Your task to perform on an android device: turn vacation reply on in the gmail app Image 0: 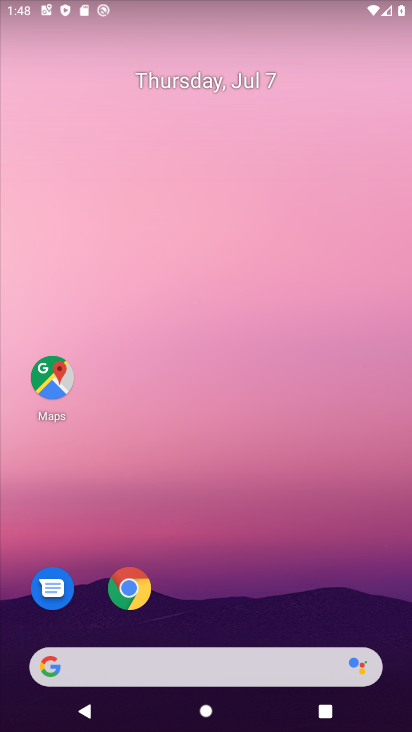
Step 0: drag from (205, 589) to (282, 15)
Your task to perform on an android device: turn vacation reply on in the gmail app Image 1: 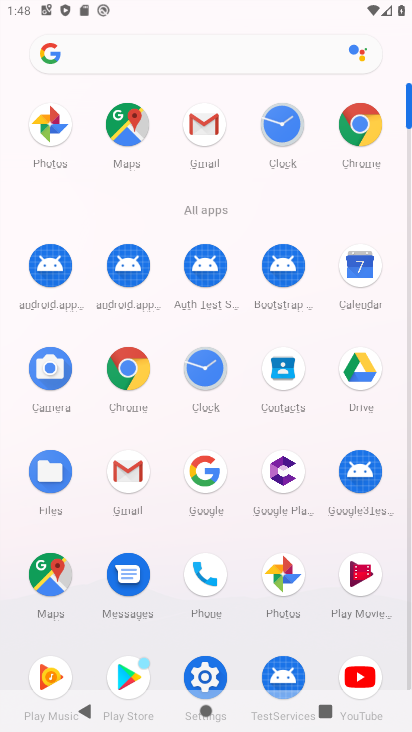
Step 1: click (214, 123)
Your task to perform on an android device: turn vacation reply on in the gmail app Image 2: 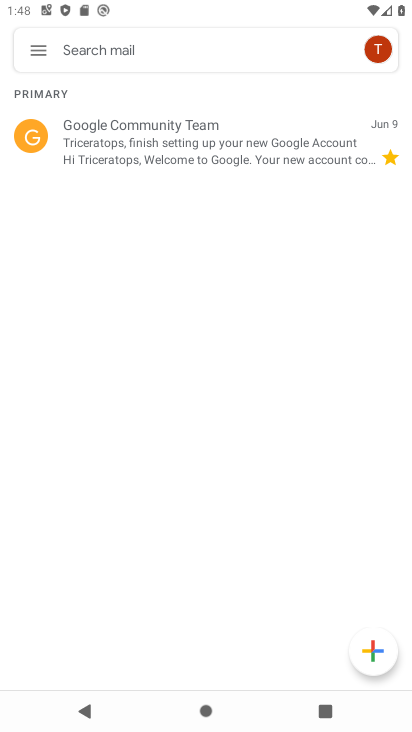
Step 2: click (28, 48)
Your task to perform on an android device: turn vacation reply on in the gmail app Image 3: 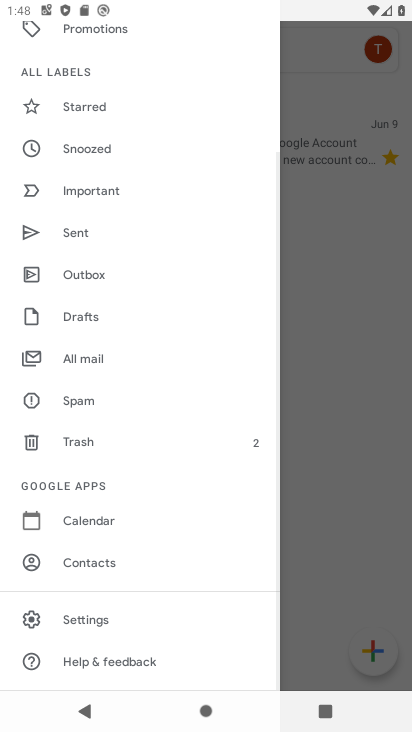
Step 3: click (89, 616)
Your task to perform on an android device: turn vacation reply on in the gmail app Image 4: 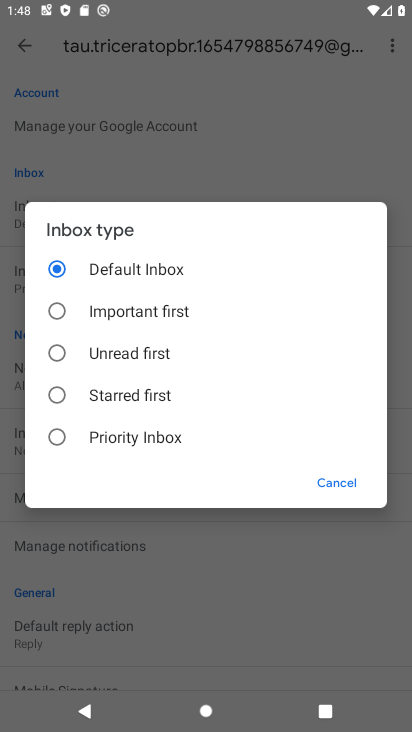
Step 4: click (247, 540)
Your task to perform on an android device: turn vacation reply on in the gmail app Image 5: 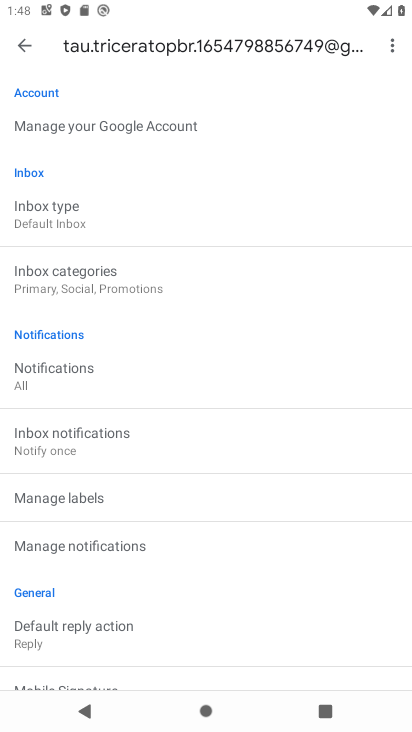
Step 5: click (334, 492)
Your task to perform on an android device: turn vacation reply on in the gmail app Image 6: 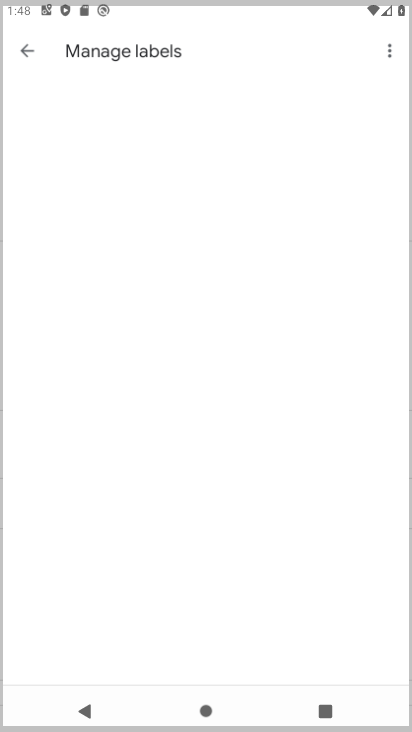
Step 6: drag from (149, 621) to (211, 141)
Your task to perform on an android device: turn vacation reply on in the gmail app Image 7: 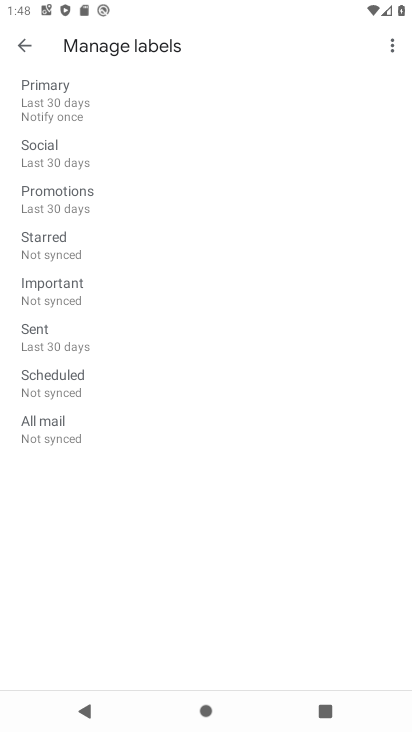
Step 7: click (18, 32)
Your task to perform on an android device: turn vacation reply on in the gmail app Image 8: 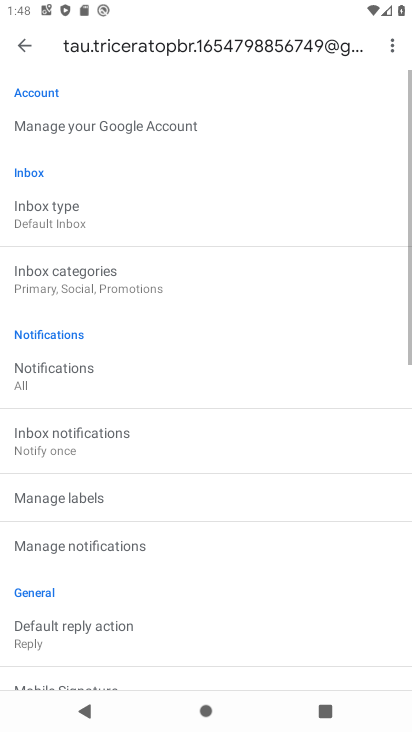
Step 8: drag from (141, 618) to (214, 32)
Your task to perform on an android device: turn vacation reply on in the gmail app Image 9: 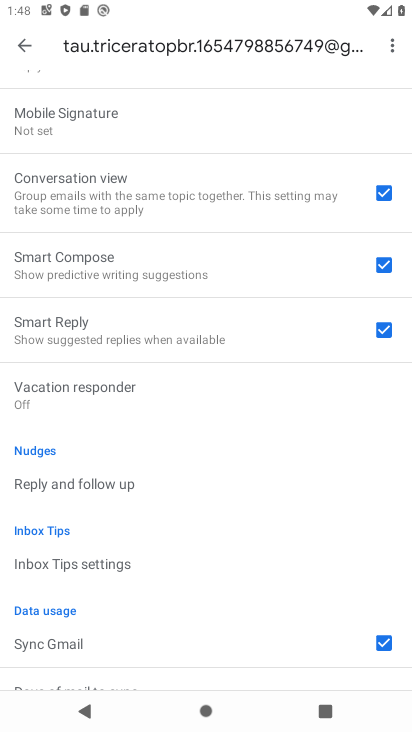
Step 9: click (135, 389)
Your task to perform on an android device: turn vacation reply on in the gmail app Image 10: 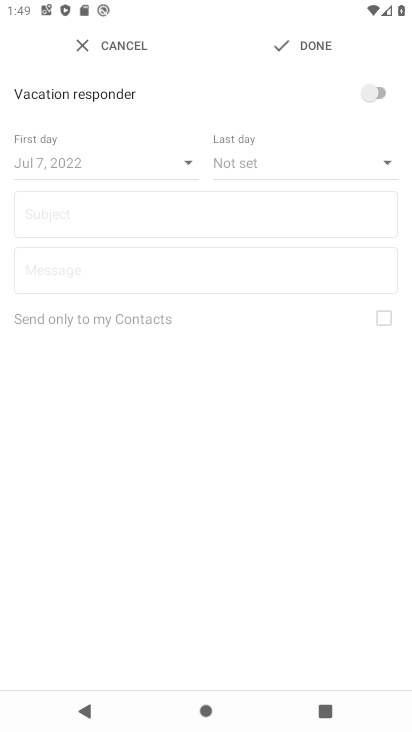
Step 10: click (375, 88)
Your task to perform on an android device: turn vacation reply on in the gmail app Image 11: 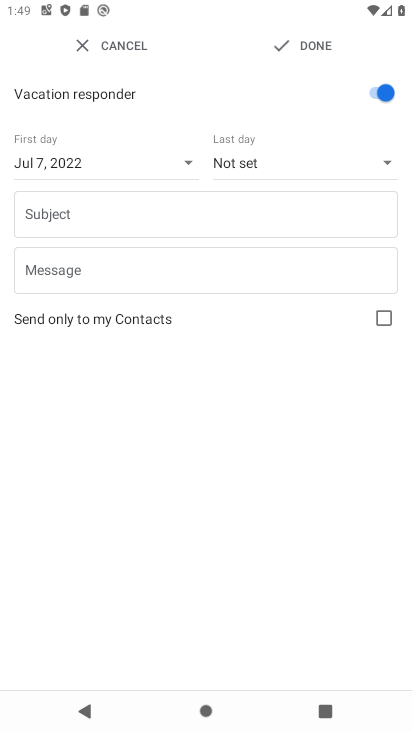
Step 11: task complete